Your task to perform on an android device: add a label to a message in the gmail app Image 0: 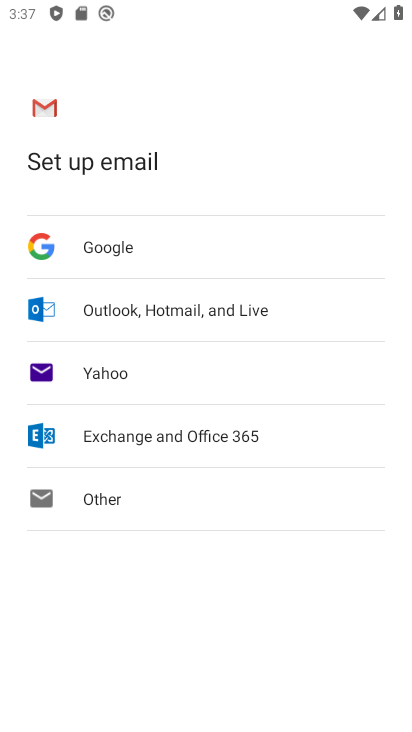
Step 0: press home button
Your task to perform on an android device: add a label to a message in the gmail app Image 1: 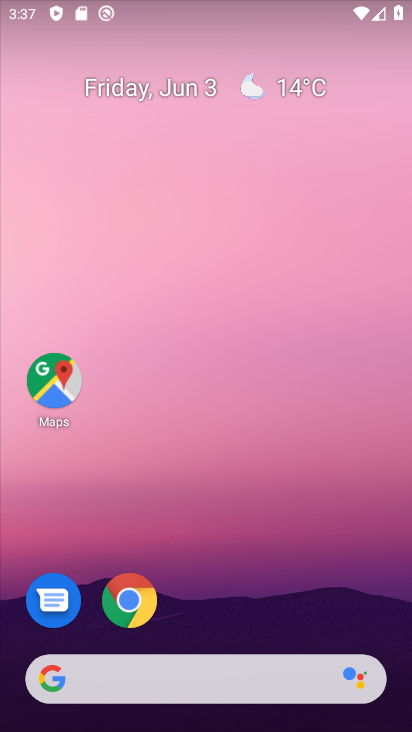
Step 1: drag from (61, 497) to (231, 156)
Your task to perform on an android device: add a label to a message in the gmail app Image 2: 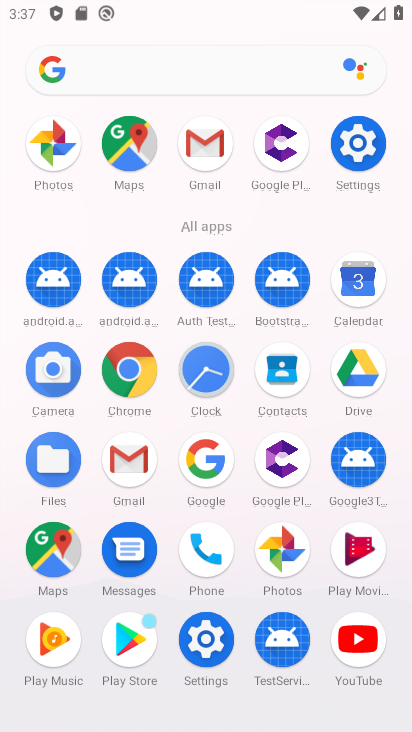
Step 2: click (215, 141)
Your task to perform on an android device: add a label to a message in the gmail app Image 3: 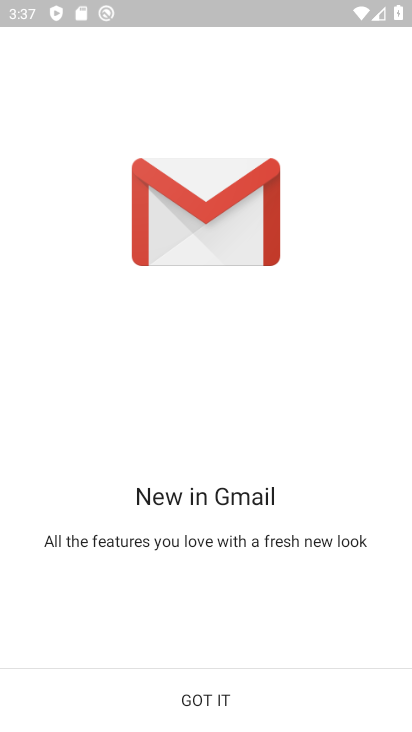
Step 3: click (167, 702)
Your task to perform on an android device: add a label to a message in the gmail app Image 4: 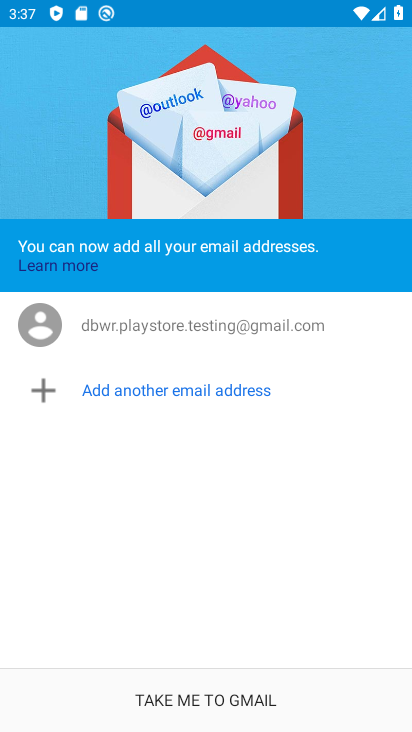
Step 4: task complete